Your task to perform on an android device: turn off data saver in the chrome app Image 0: 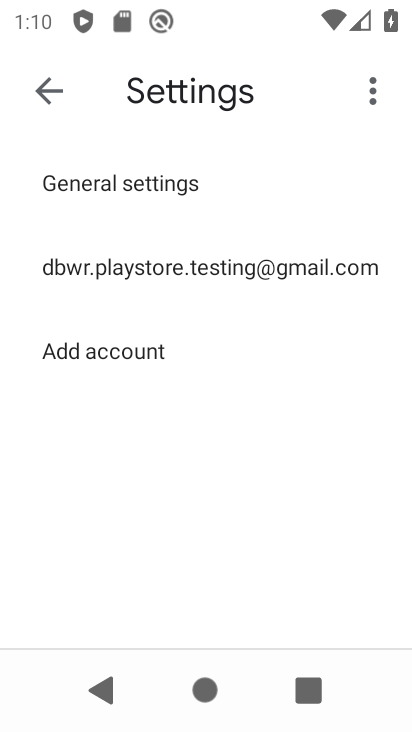
Step 0: press home button
Your task to perform on an android device: turn off data saver in the chrome app Image 1: 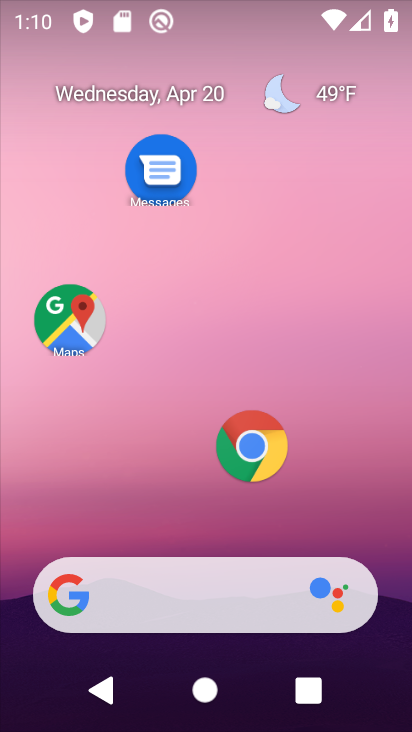
Step 1: click (248, 440)
Your task to perform on an android device: turn off data saver in the chrome app Image 2: 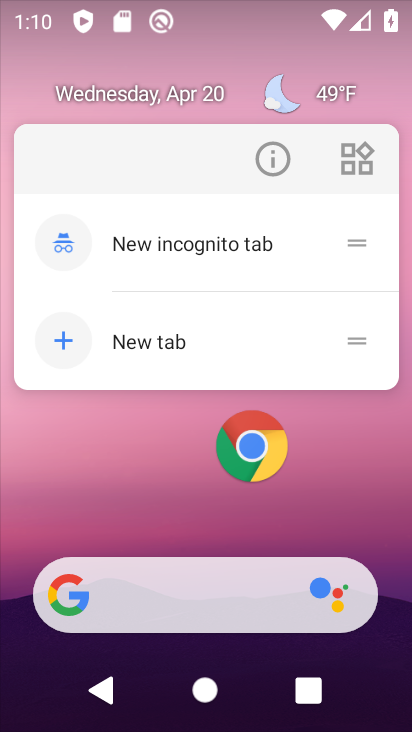
Step 2: click (248, 440)
Your task to perform on an android device: turn off data saver in the chrome app Image 3: 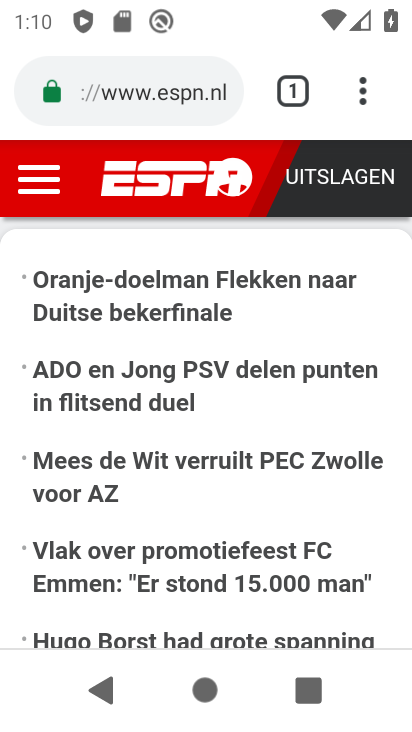
Step 3: click (357, 84)
Your task to perform on an android device: turn off data saver in the chrome app Image 4: 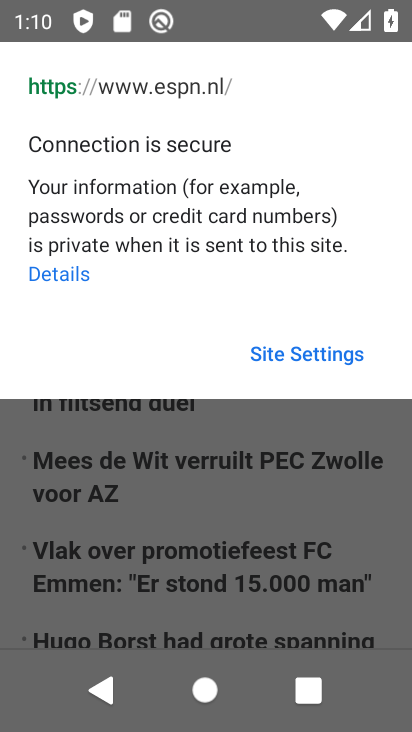
Step 4: click (227, 462)
Your task to perform on an android device: turn off data saver in the chrome app Image 5: 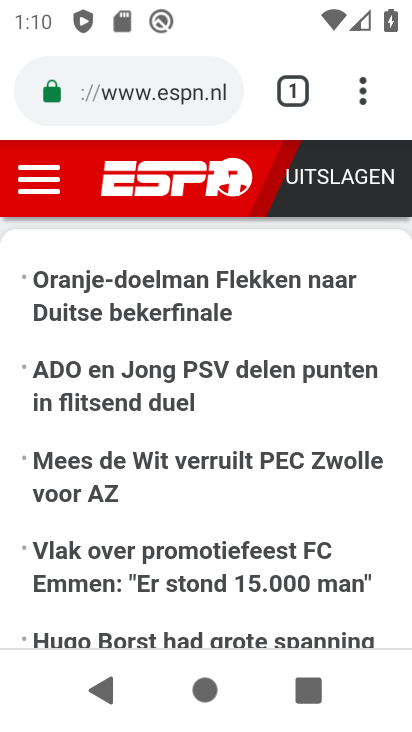
Step 5: click (363, 92)
Your task to perform on an android device: turn off data saver in the chrome app Image 6: 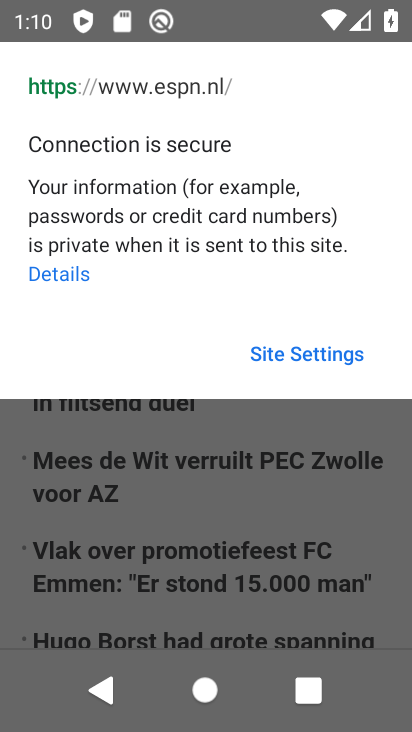
Step 6: click (205, 537)
Your task to perform on an android device: turn off data saver in the chrome app Image 7: 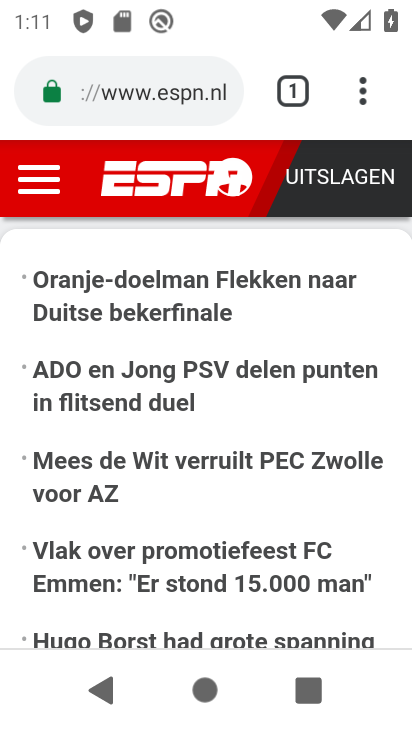
Step 7: click (362, 93)
Your task to perform on an android device: turn off data saver in the chrome app Image 8: 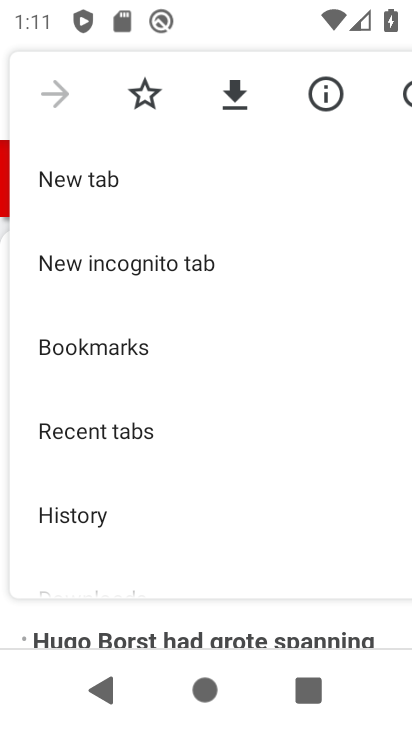
Step 8: drag from (150, 544) to (159, 108)
Your task to perform on an android device: turn off data saver in the chrome app Image 9: 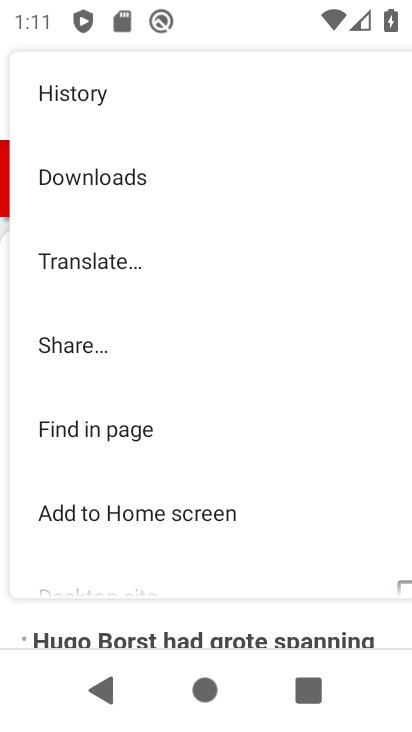
Step 9: drag from (202, 533) to (207, 101)
Your task to perform on an android device: turn off data saver in the chrome app Image 10: 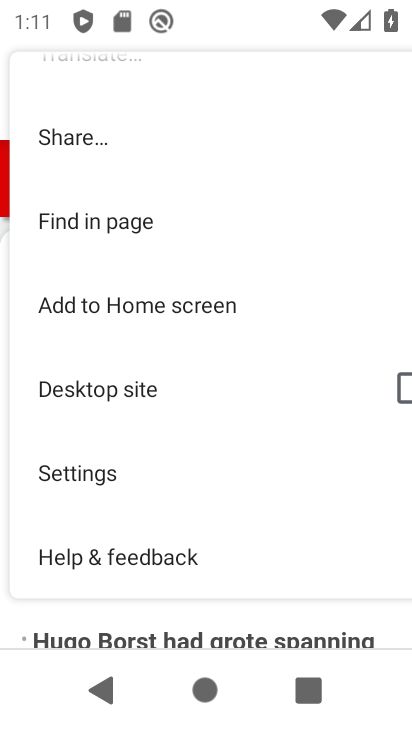
Step 10: click (132, 468)
Your task to perform on an android device: turn off data saver in the chrome app Image 11: 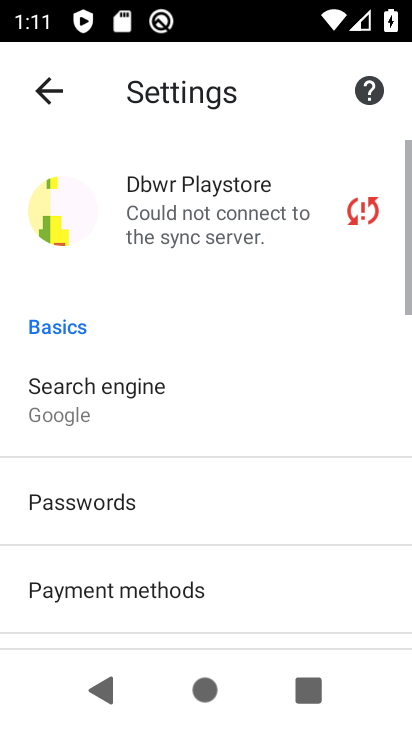
Step 11: drag from (234, 579) to (234, 88)
Your task to perform on an android device: turn off data saver in the chrome app Image 12: 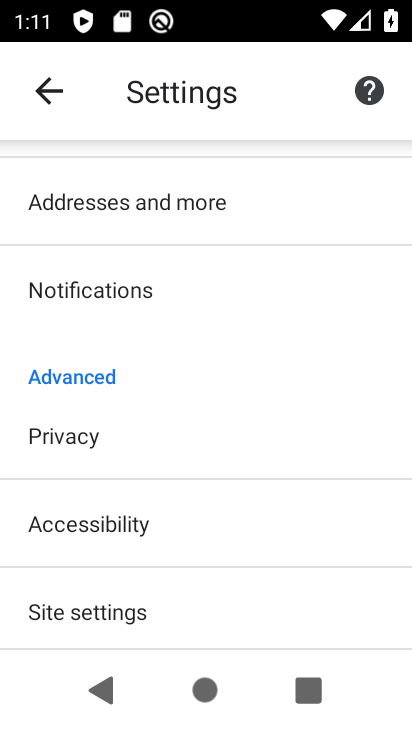
Step 12: drag from (184, 600) to (199, 208)
Your task to perform on an android device: turn off data saver in the chrome app Image 13: 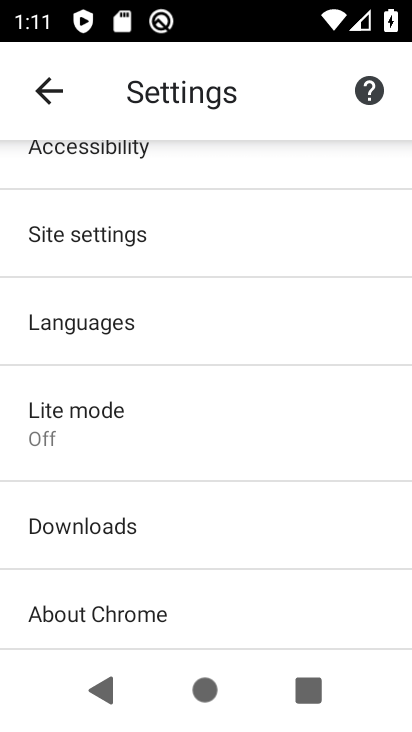
Step 13: click (127, 429)
Your task to perform on an android device: turn off data saver in the chrome app Image 14: 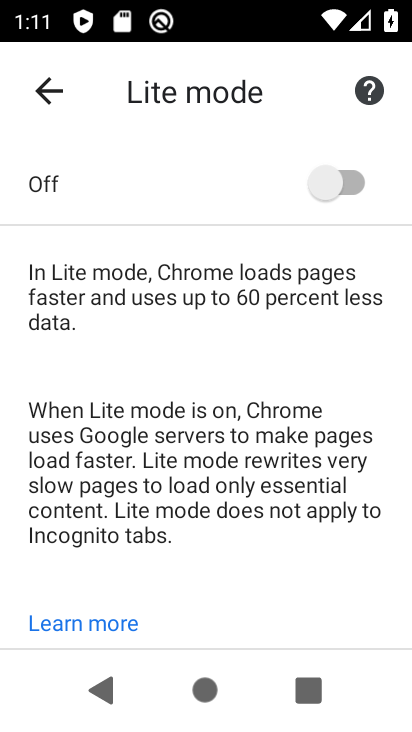
Step 14: task complete